Your task to perform on an android device: turn on bluetooth scan Image 0: 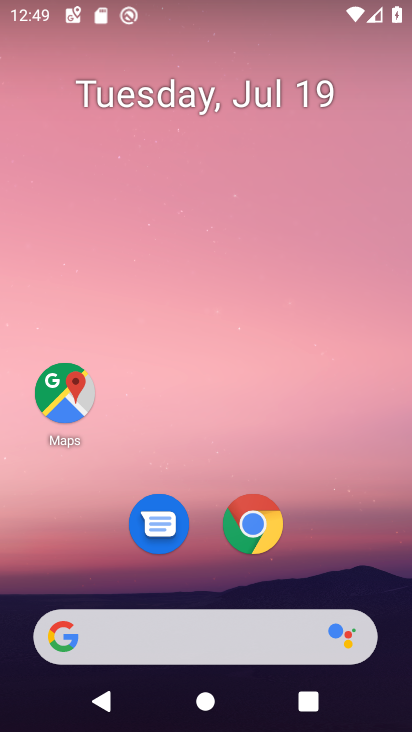
Step 0: drag from (331, 494) to (265, 4)
Your task to perform on an android device: turn on bluetooth scan Image 1: 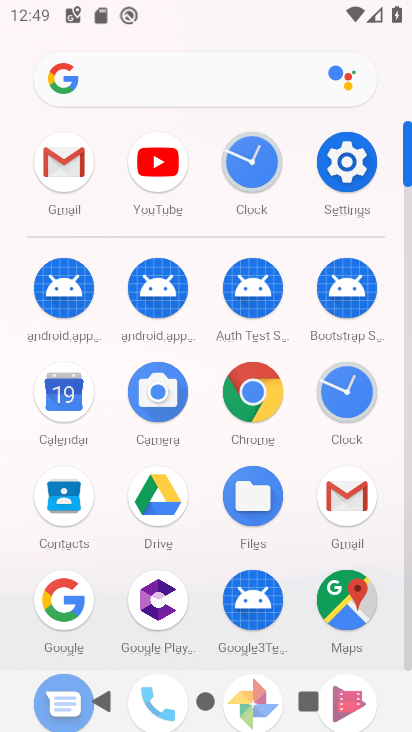
Step 1: click (333, 165)
Your task to perform on an android device: turn on bluetooth scan Image 2: 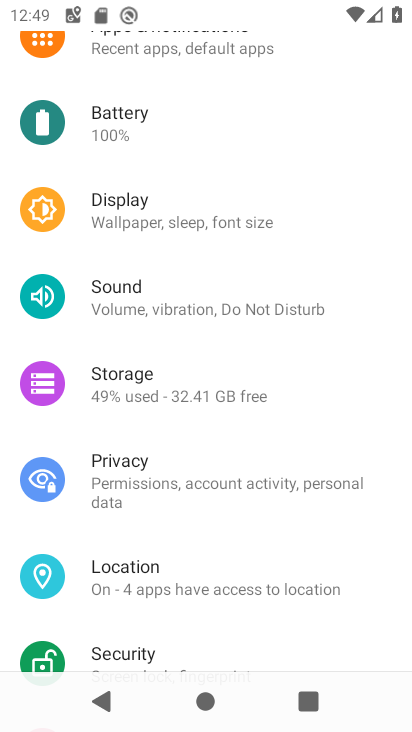
Step 2: click (201, 570)
Your task to perform on an android device: turn on bluetooth scan Image 3: 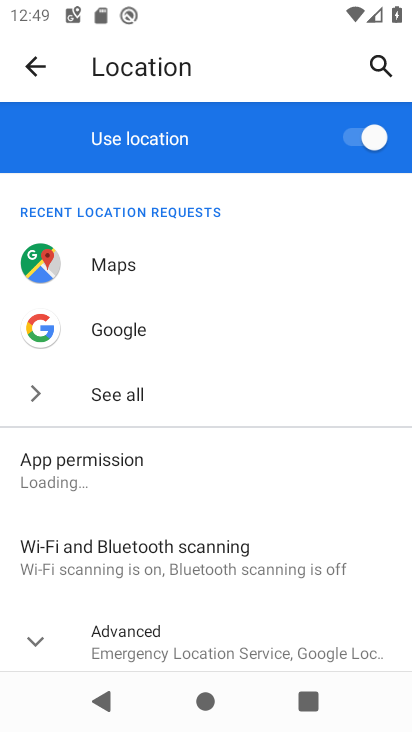
Step 3: click (230, 549)
Your task to perform on an android device: turn on bluetooth scan Image 4: 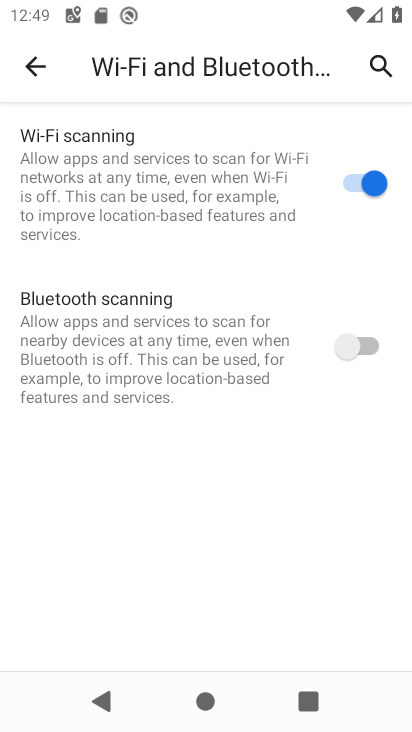
Step 4: click (363, 338)
Your task to perform on an android device: turn on bluetooth scan Image 5: 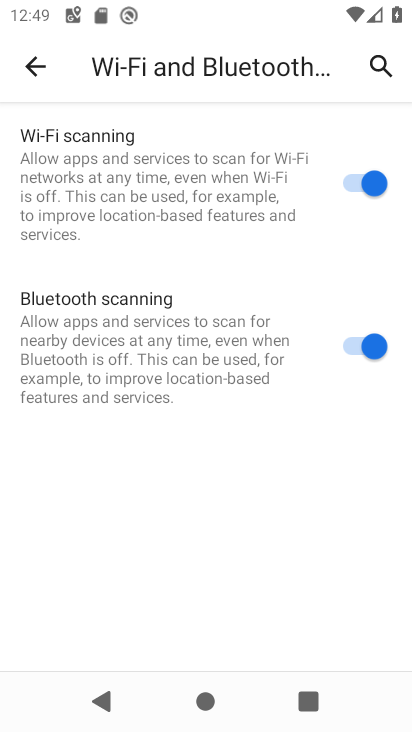
Step 5: task complete